Your task to perform on an android device: Open Android settings Image 0: 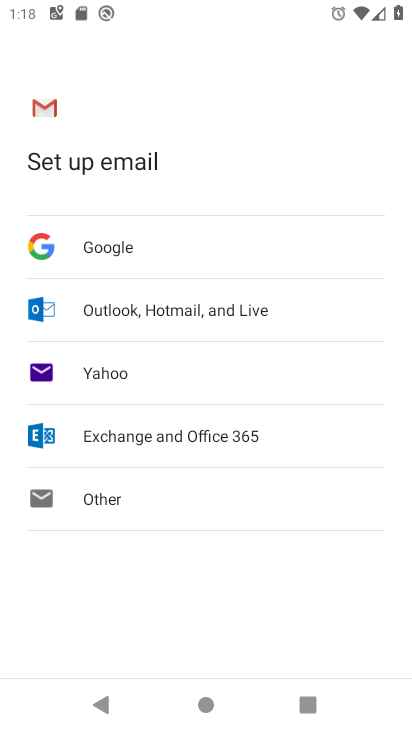
Step 0: press home button
Your task to perform on an android device: Open Android settings Image 1: 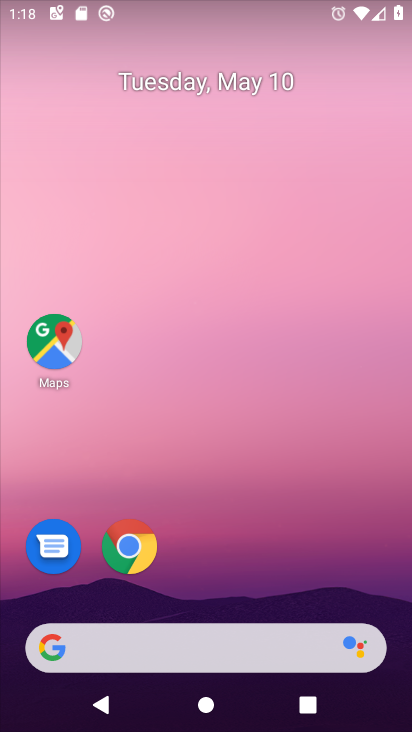
Step 1: drag from (328, 589) to (335, 7)
Your task to perform on an android device: Open Android settings Image 2: 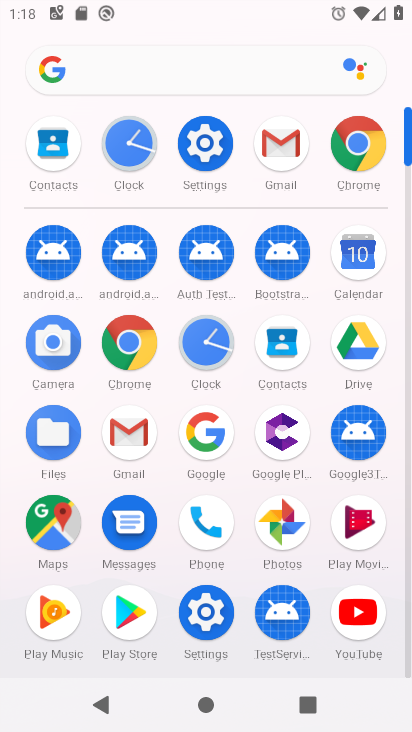
Step 2: click (194, 153)
Your task to perform on an android device: Open Android settings Image 3: 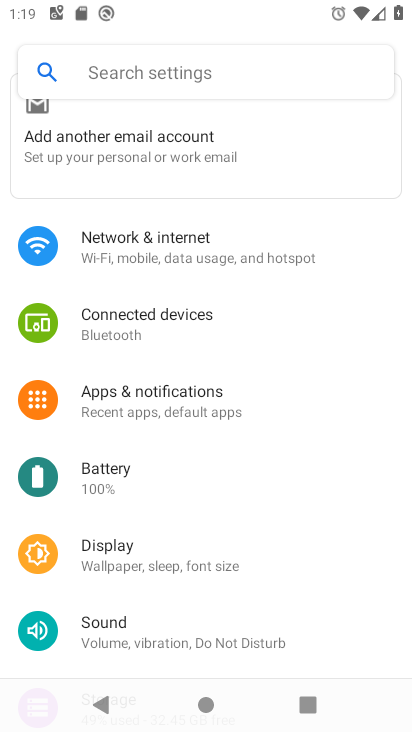
Step 3: drag from (233, 536) to (311, 77)
Your task to perform on an android device: Open Android settings Image 4: 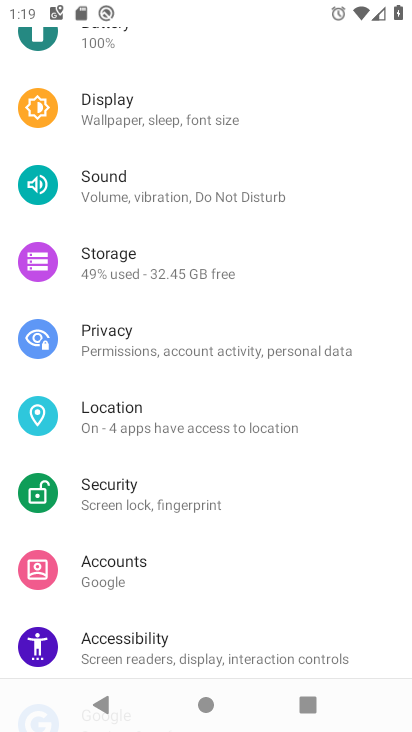
Step 4: drag from (173, 599) to (188, 230)
Your task to perform on an android device: Open Android settings Image 5: 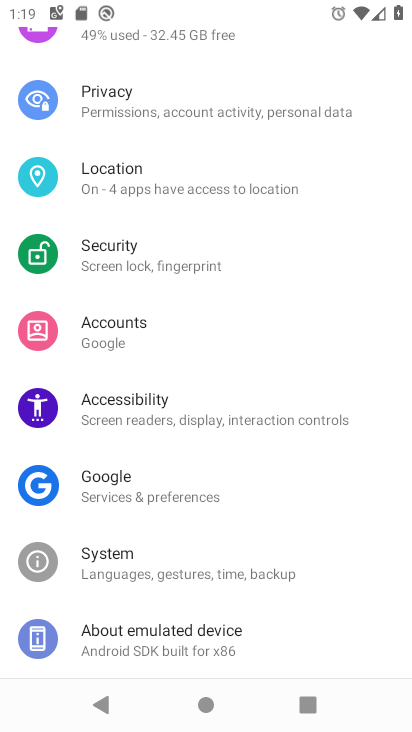
Step 5: click (204, 645)
Your task to perform on an android device: Open Android settings Image 6: 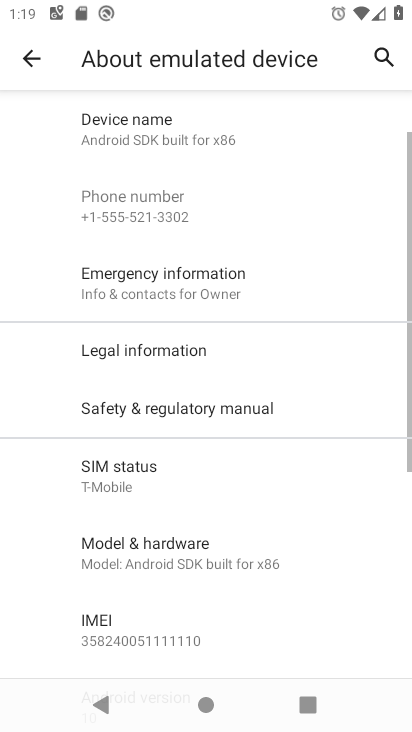
Step 6: drag from (198, 518) to (187, 191)
Your task to perform on an android device: Open Android settings Image 7: 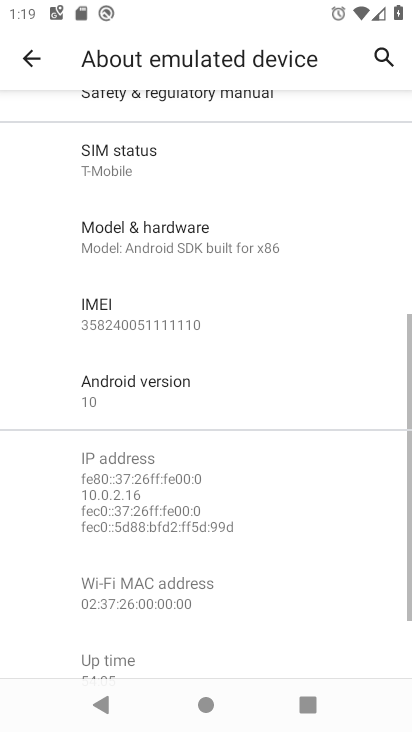
Step 7: click (142, 408)
Your task to perform on an android device: Open Android settings Image 8: 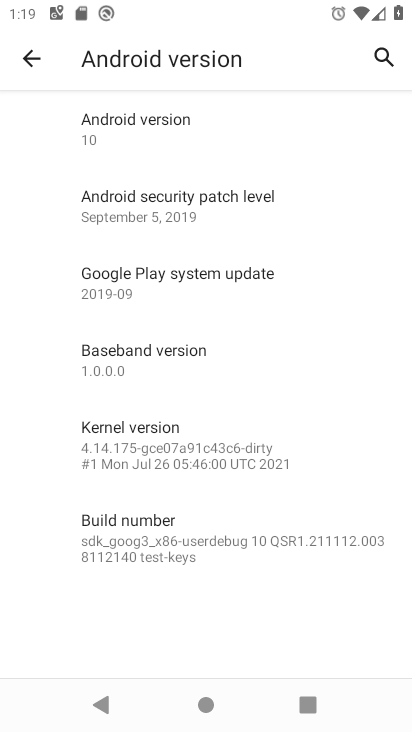
Step 8: task complete